Your task to perform on an android device: Open Google Image 0: 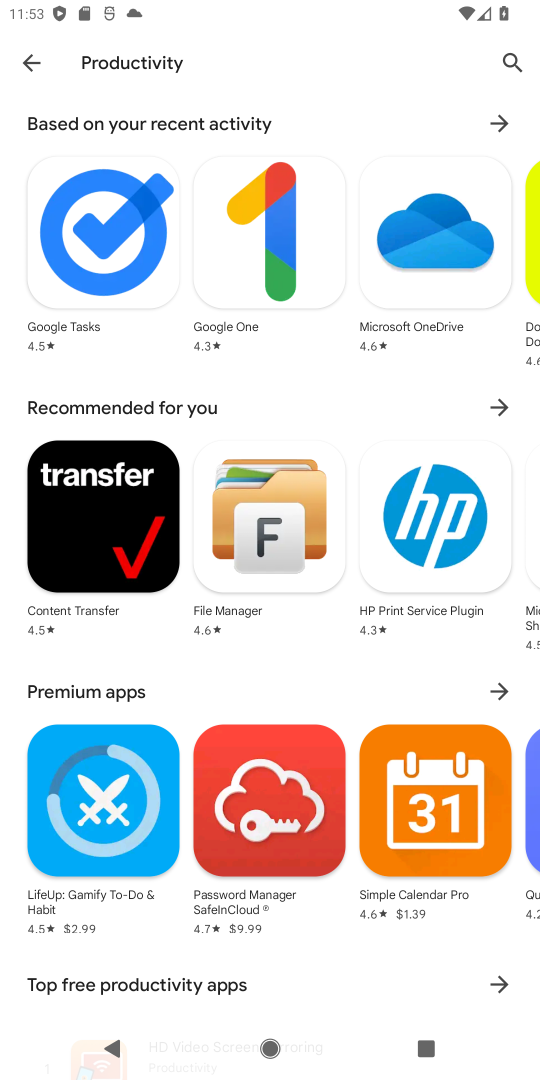
Step 0: press home button
Your task to perform on an android device: Open Google Image 1: 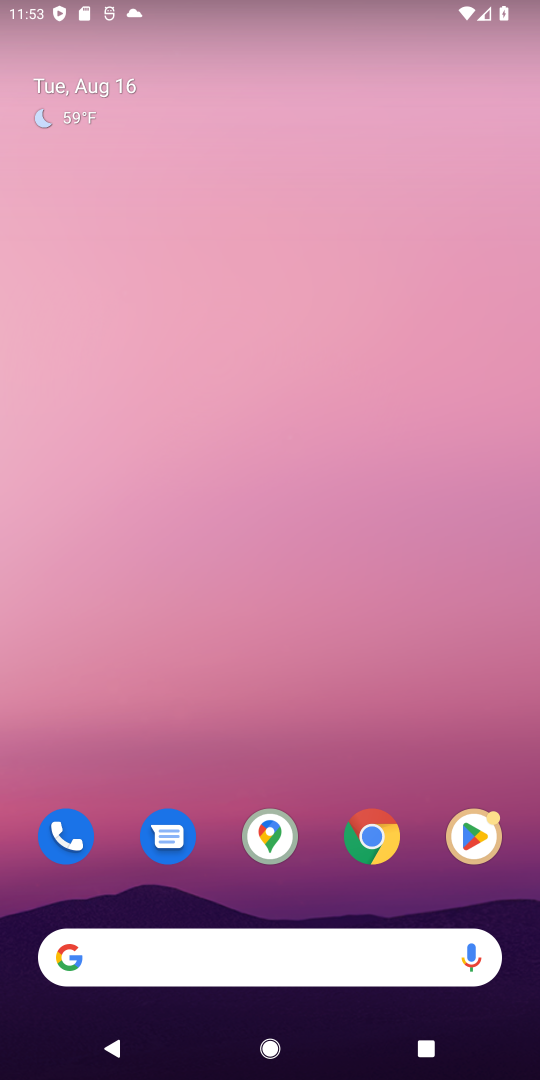
Step 1: drag from (226, 957) to (289, 122)
Your task to perform on an android device: Open Google Image 2: 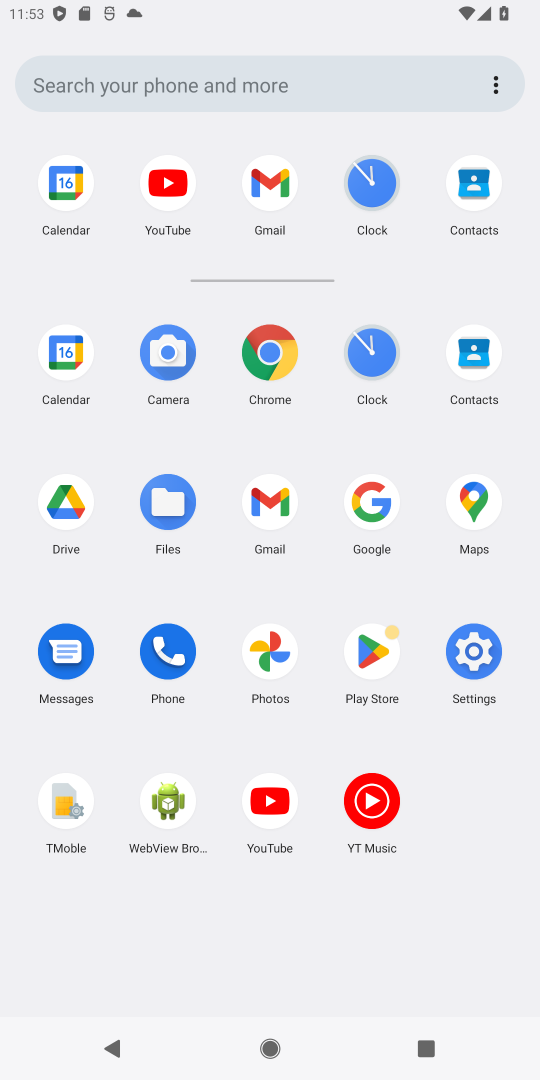
Step 2: click (365, 504)
Your task to perform on an android device: Open Google Image 3: 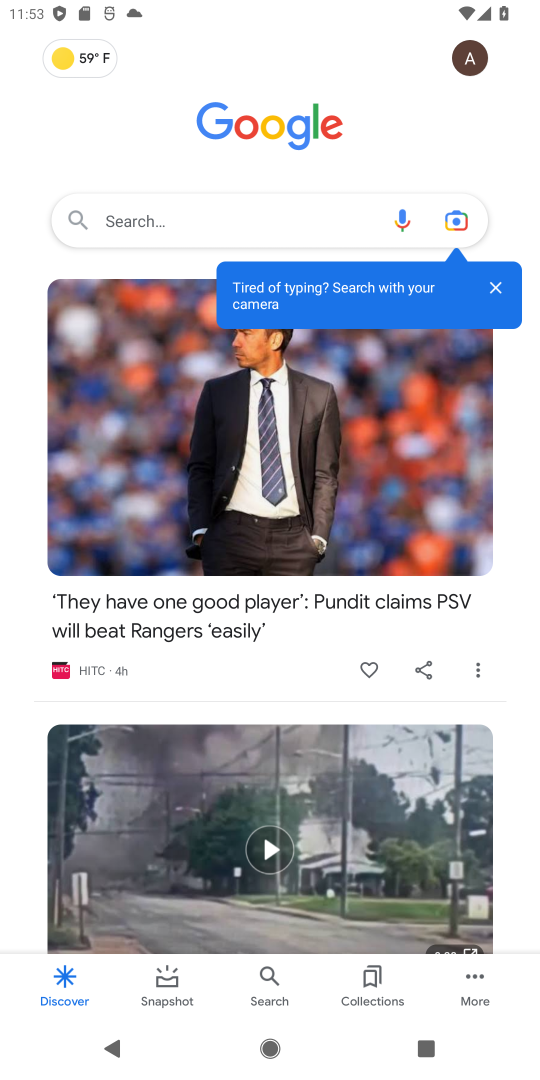
Step 3: task complete